Your task to perform on an android device: turn notification dots on Image 0: 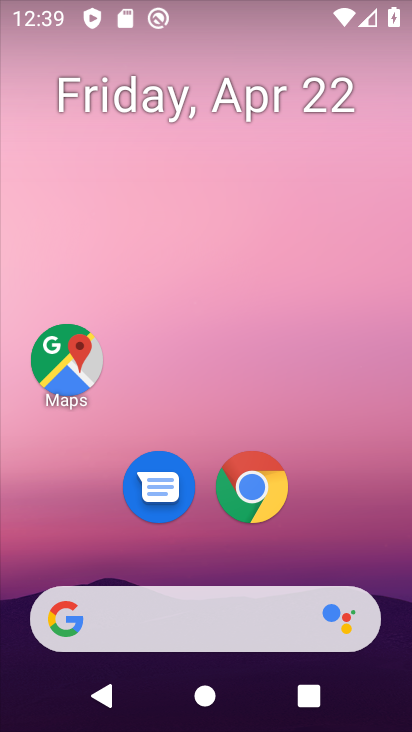
Step 0: drag from (215, 530) to (258, 154)
Your task to perform on an android device: turn notification dots on Image 1: 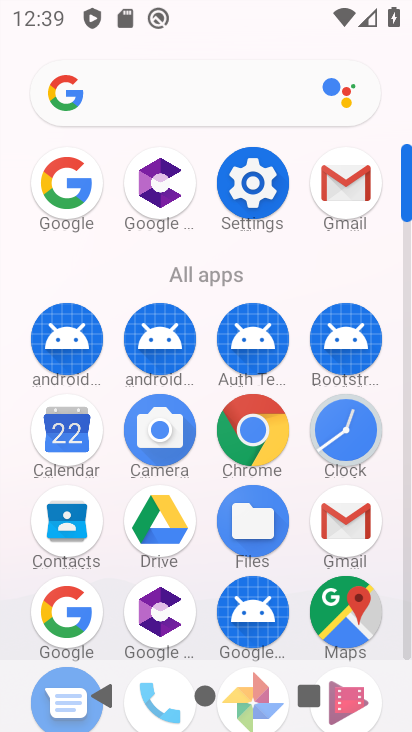
Step 1: click (251, 202)
Your task to perform on an android device: turn notification dots on Image 2: 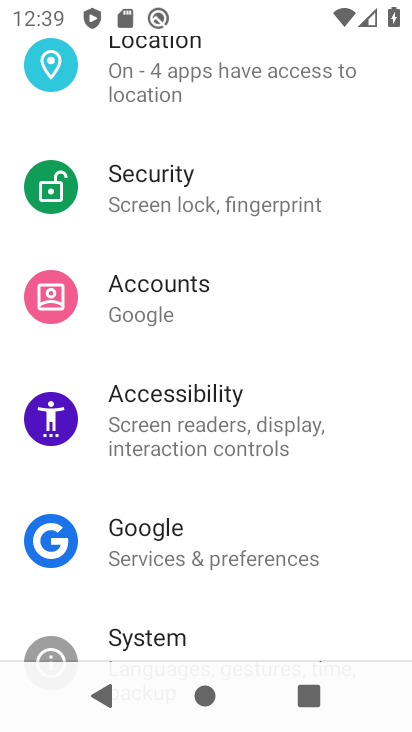
Step 2: drag from (240, 168) to (256, 455)
Your task to perform on an android device: turn notification dots on Image 3: 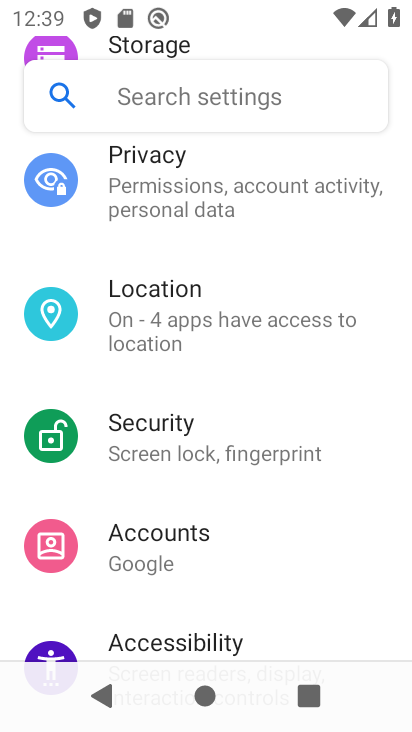
Step 3: drag from (264, 176) to (242, 480)
Your task to perform on an android device: turn notification dots on Image 4: 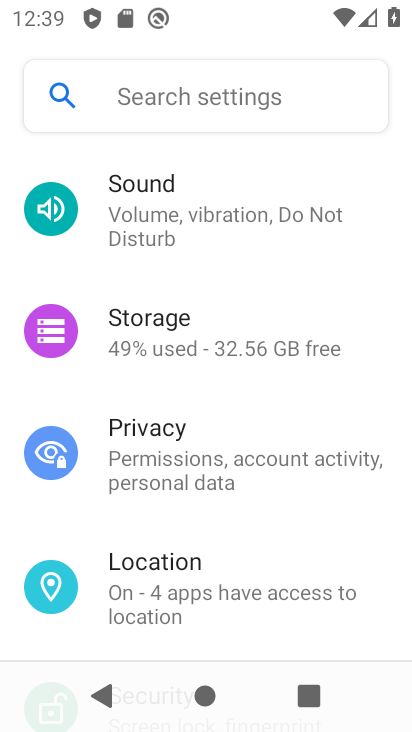
Step 4: drag from (239, 196) to (237, 430)
Your task to perform on an android device: turn notification dots on Image 5: 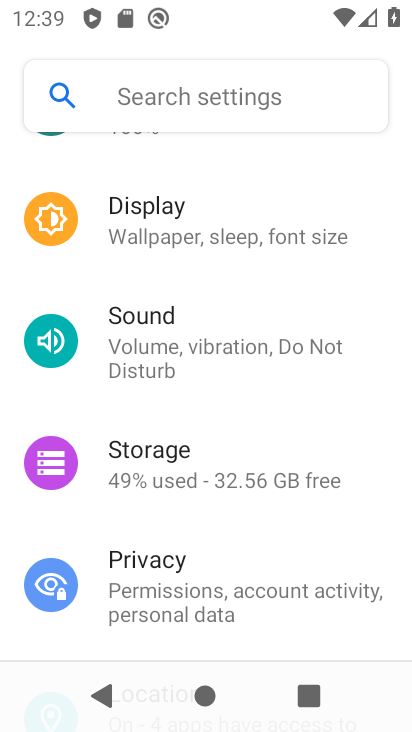
Step 5: drag from (233, 212) to (217, 488)
Your task to perform on an android device: turn notification dots on Image 6: 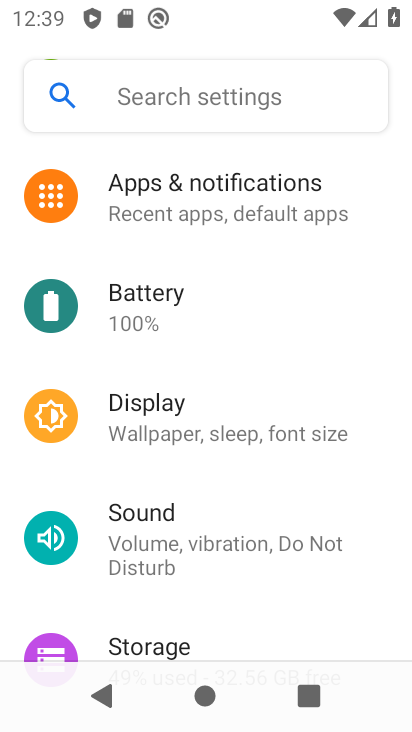
Step 6: click (220, 218)
Your task to perform on an android device: turn notification dots on Image 7: 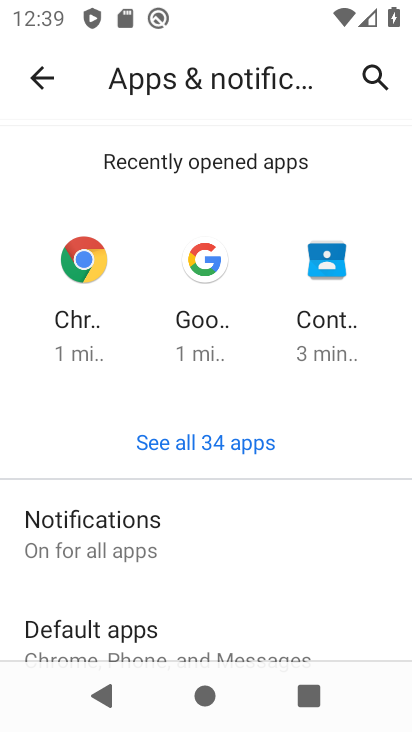
Step 7: drag from (257, 587) to (259, 243)
Your task to perform on an android device: turn notification dots on Image 8: 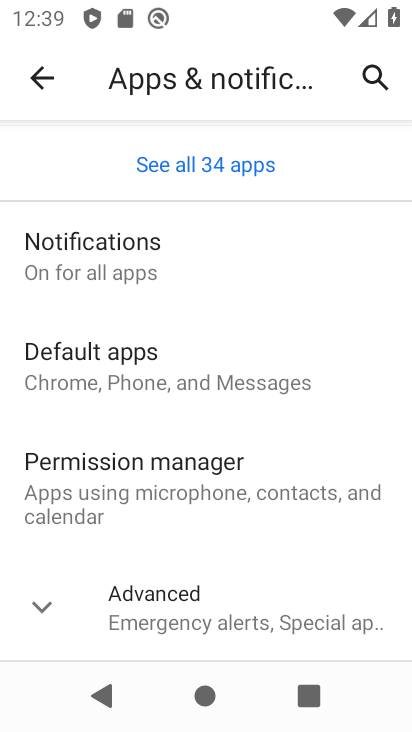
Step 8: click (152, 272)
Your task to perform on an android device: turn notification dots on Image 9: 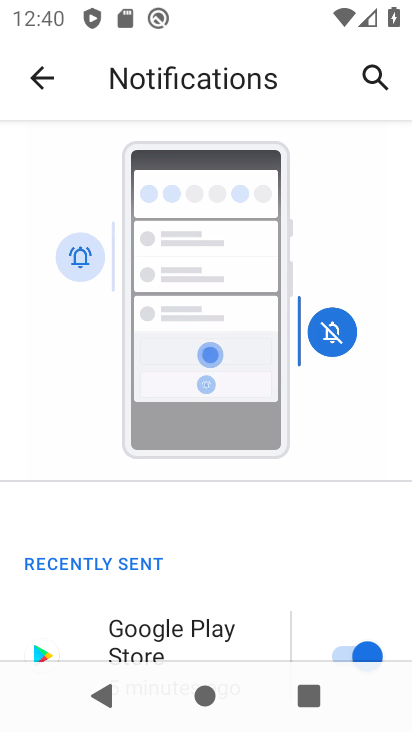
Step 9: drag from (251, 614) to (252, 153)
Your task to perform on an android device: turn notification dots on Image 10: 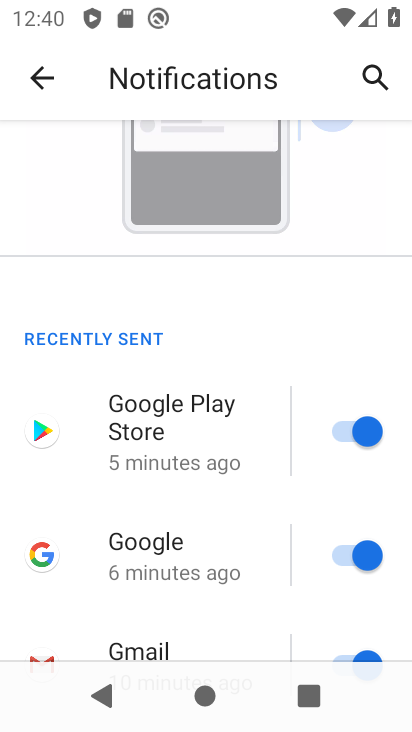
Step 10: drag from (253, 561) to (263, 219)
Your task to perform on an android device: turn notification dots on Image 11: 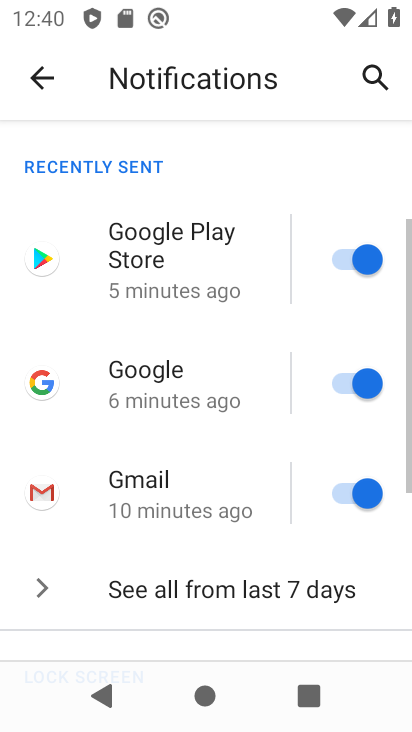
Step 11: drag from (247, 527) to (259, 281)
Your task to perform on an android device: turn notification dots on Image 12: 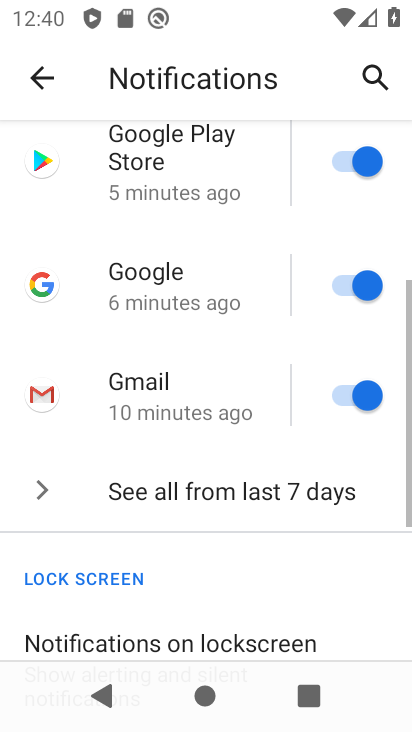
Step 12: drag from (241, 616) to (246, 328)
Your task to perform on an android device: turn notification dots on Image 13: 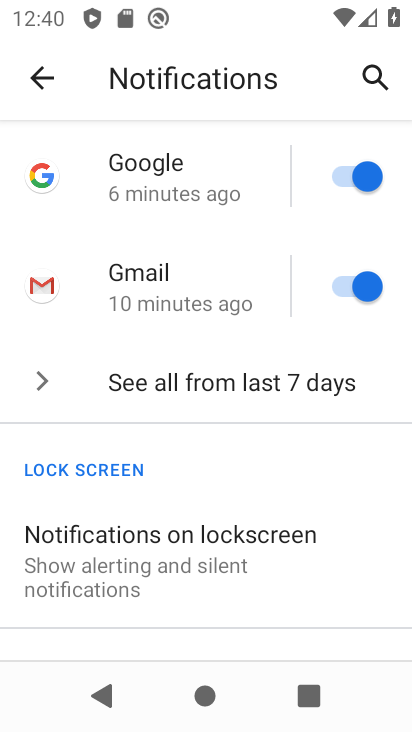
Step 13: drag from (258, 424) to (242, 192)
Your task to perform on an android device: turn notification dots on Image 14: 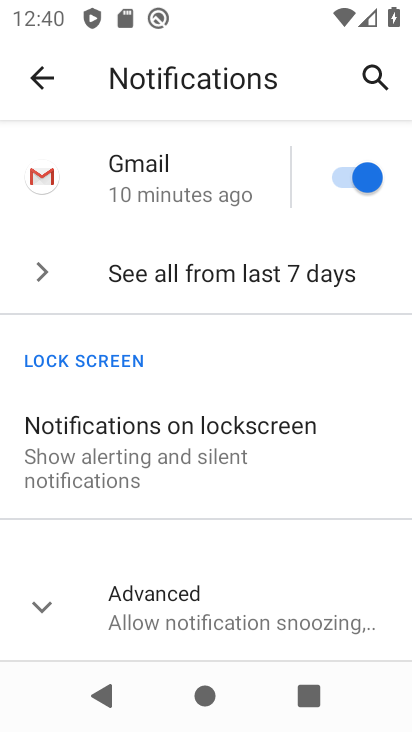
Step 14: click (152, 591)
Your task to perform on an android device: turn notification dots on Image 15: 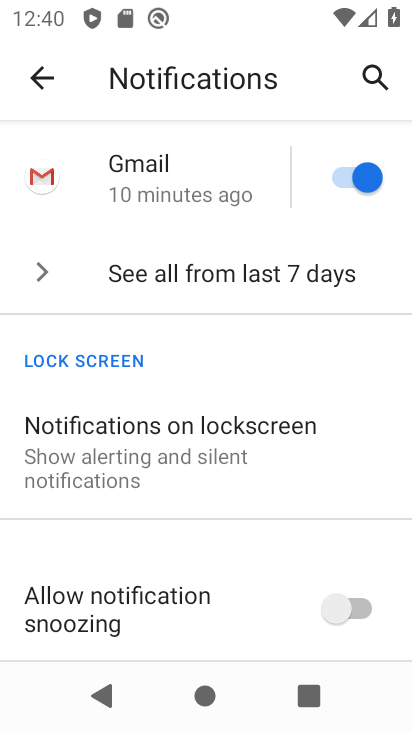
Step 15: task complete